Your task to perform on an android device: Search for top rated sushi restaurant Image 0: 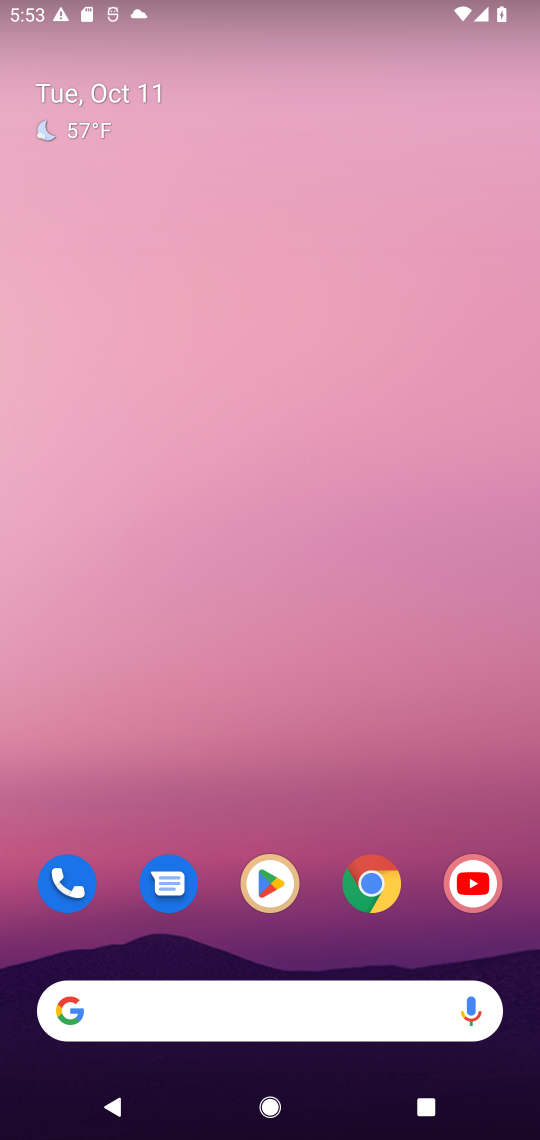
Step 0: drag from (331, 950) to (225, 68)
Your task to perform on an android device: Search for top rated sushi restaurant Image 1: 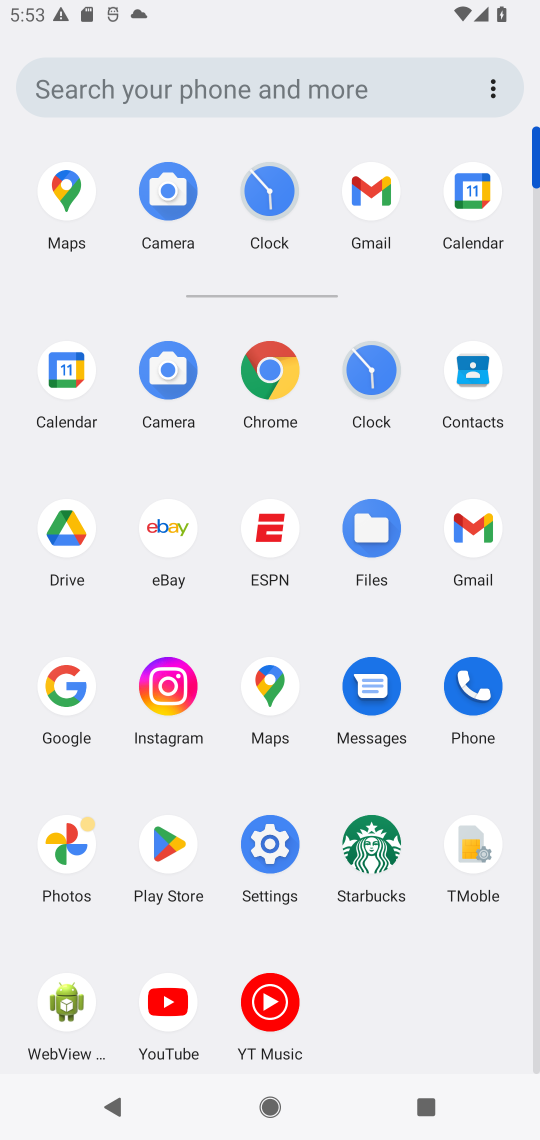
Step 1: click (269, 369)
Your task to perform on an android device: Search for top rated sushi restaurant Image 2: 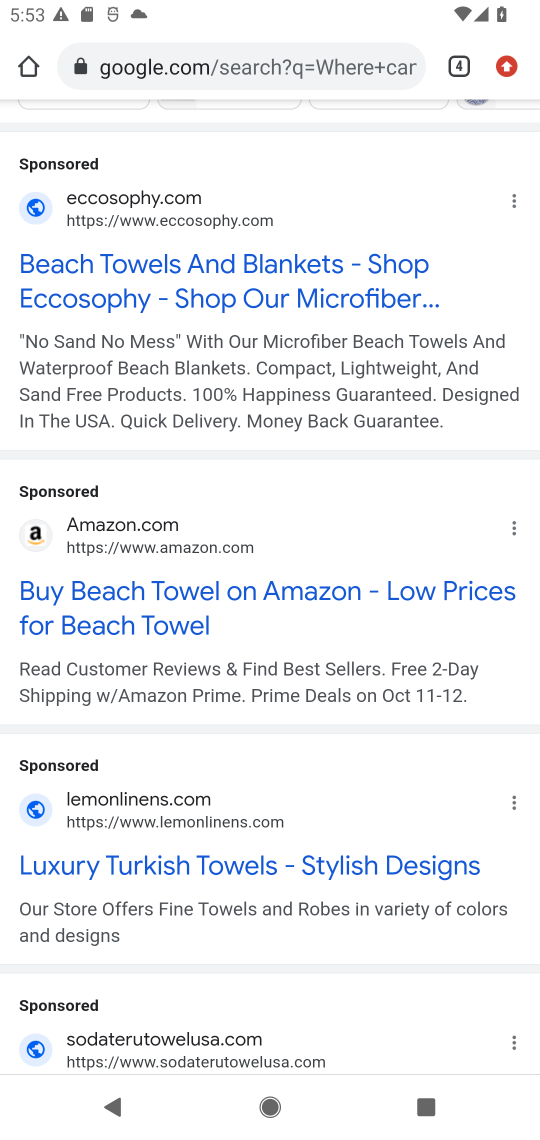
Step 2: click (248, 65)
Your task to perform on an android device: Search for top rated sushi restaurant Image 3: 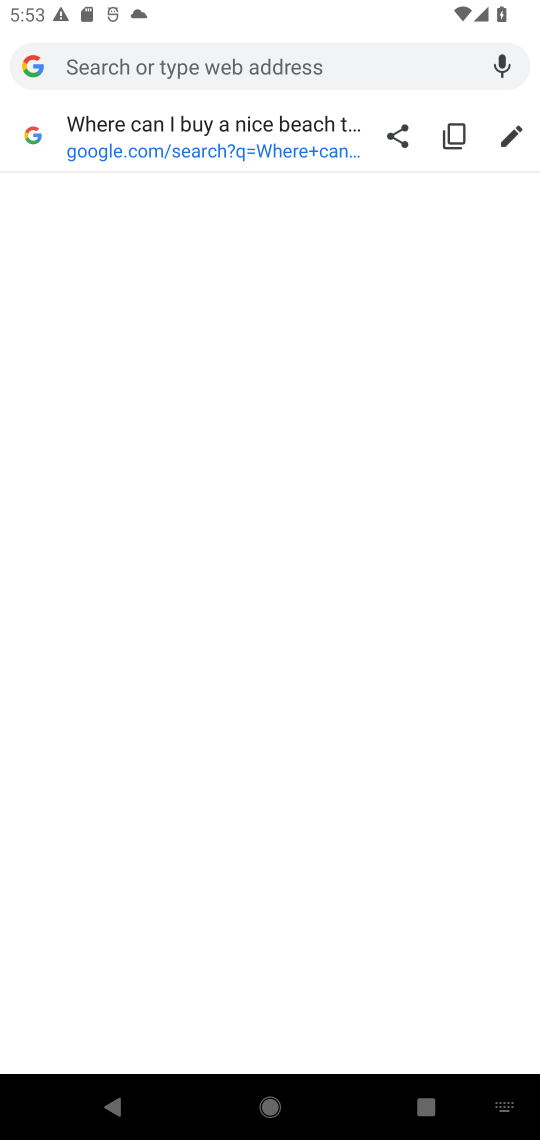
Step 3: type "top reated sushi restaurant"
Your task to perform on an android device: Search for top rated sushi restaurant Image 4: 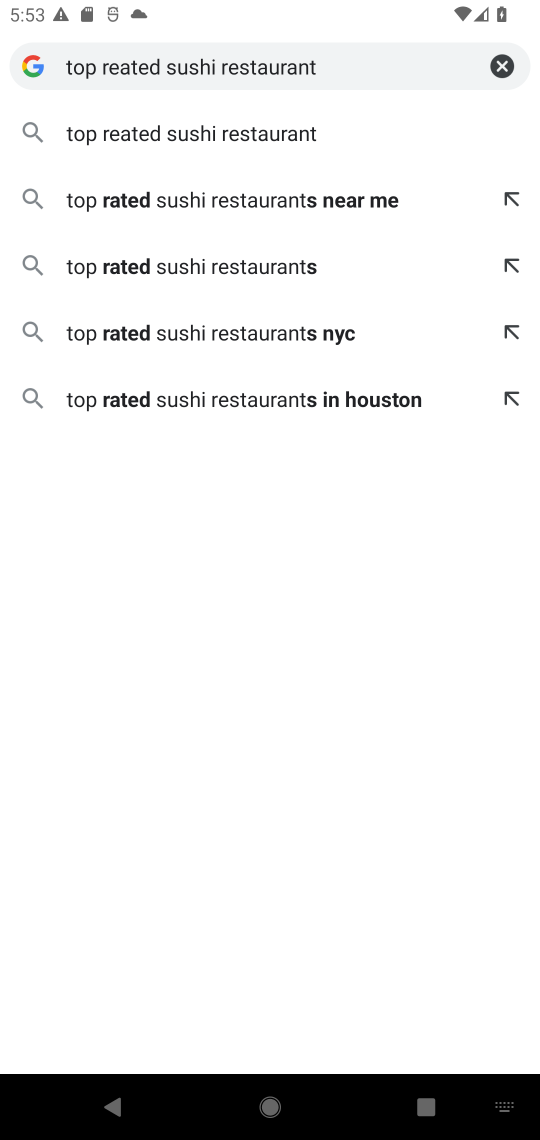
Step 4: press enter
Your task to perform on an android device: Search for top rated sushi restaurant Image 5: 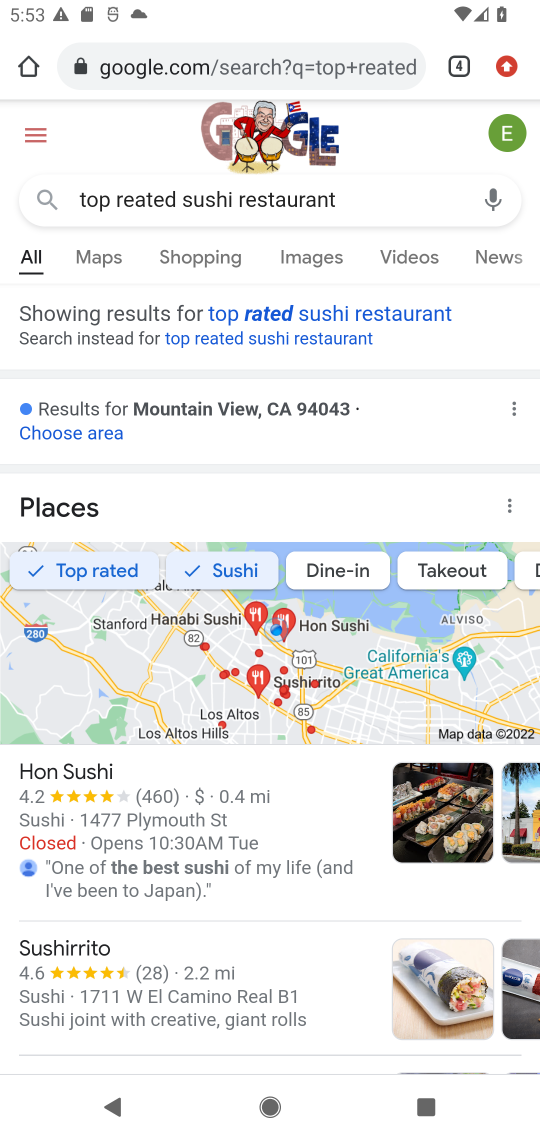
Step 5: task complete